Your task to perform on an android device: manage bookmarks in the chrome app Image 0: 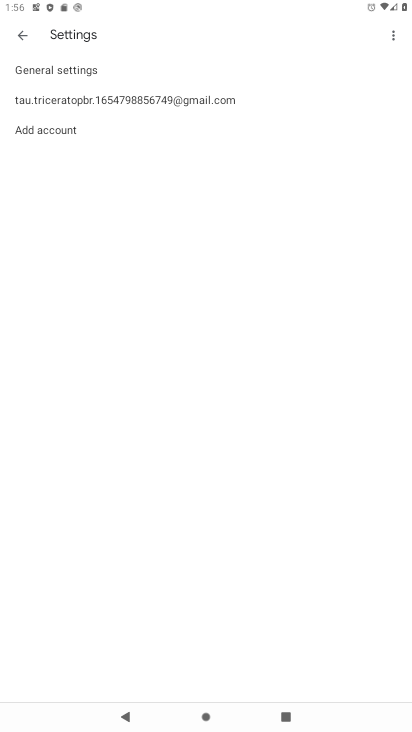
Step 0: press home button
Your task to perform on an android device: manage bookmarks in the chrome app Image 1: 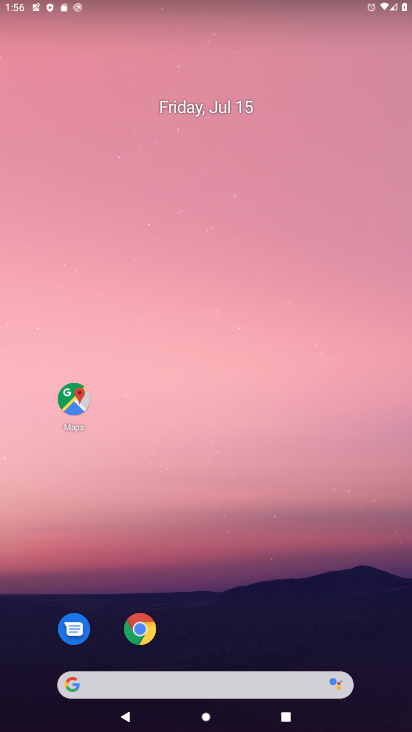
Step 1: drag from (332, 519) to (280, 93)
Your task to perform on an android device: manage bookmarks in the chrome app Image 2: 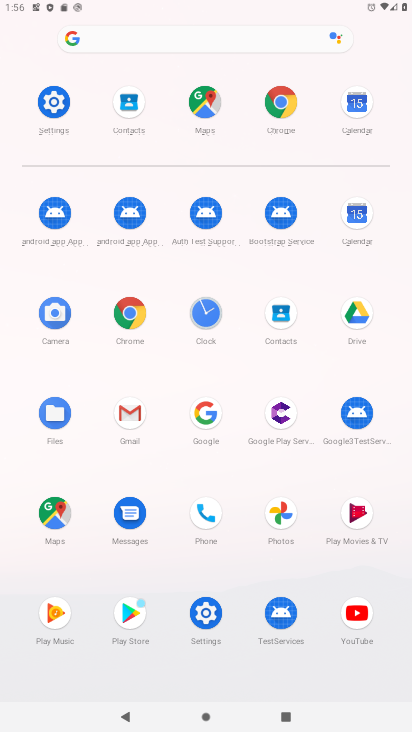
Step 2: click (275, 104)
Your task to perform on an android device: manage bookmarks in the chrome app Image 3: 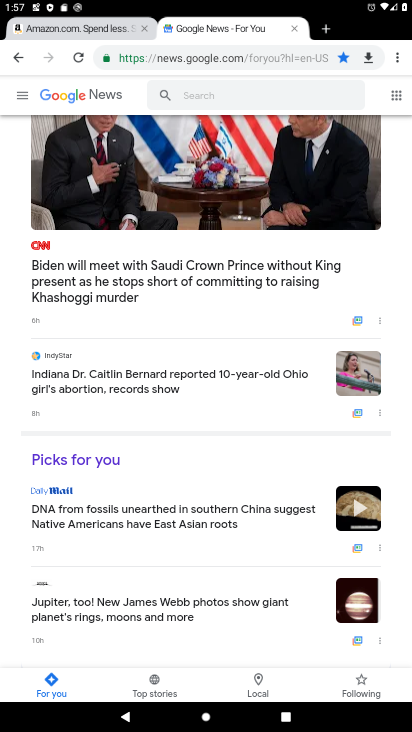
Step 3: drag from (396, 58) to (293, 164)
Your task to perform on an android device: manage bookmarks in the chrome app Image 4: 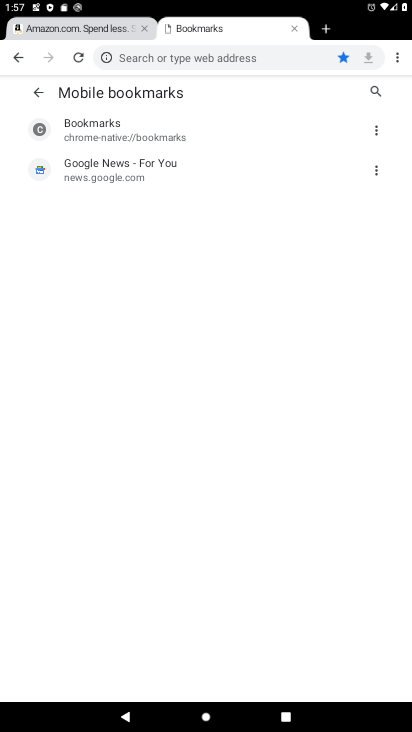
Step 4: click (374, 163)
Your task to perform on an android device: manage bookmarks in the chrome app Image 5: 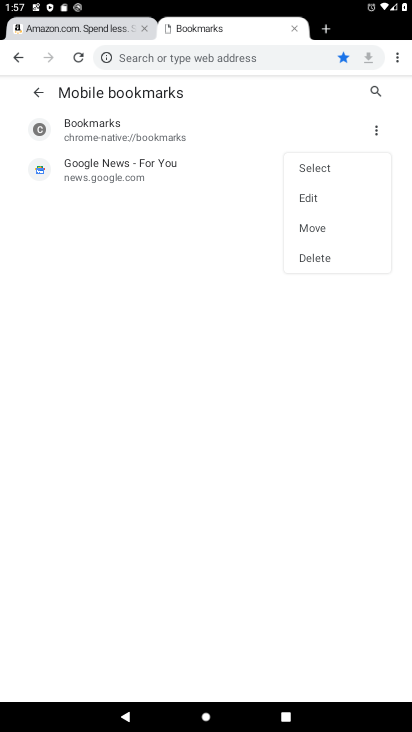
Step 5: click (323, 253)
Your task to perform on an android device: manage bookmarks in the chrome app Image 6: 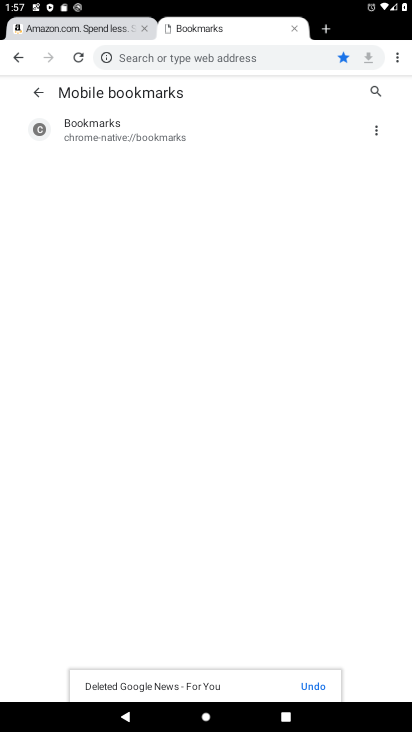
Step 6: task complete